Your task to perform on an android device: toggle notifications settings in the gmail app Image 0: 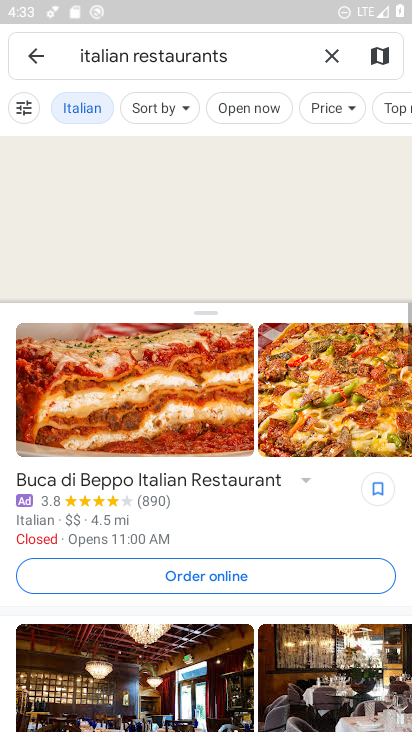
Step 0: press home button
Your task to perform on an android device: toggle notifications settings in the gmail app Image 1: 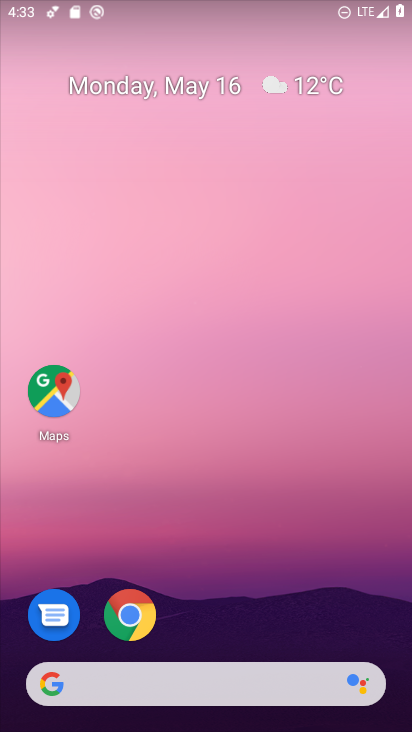
Step 1: drag from (226, 723) to (248, 84)
Your task to perform on an android device: toggle notifications settings in the gmail app Image 2: 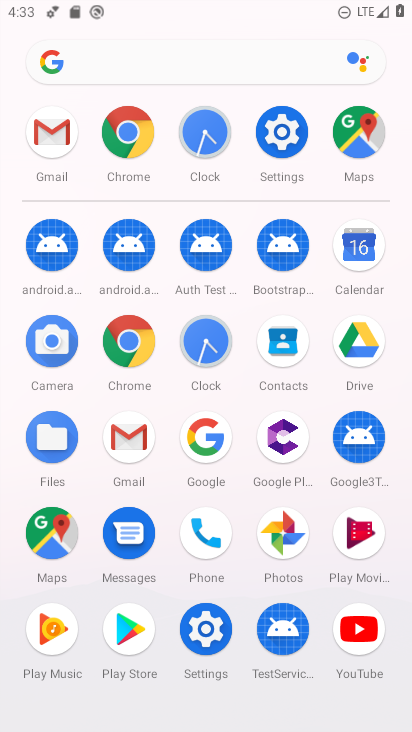
Step 2: click (128, 437)
Your task to perform on an android device: toggle notifications settings in the gmail app Image 3: 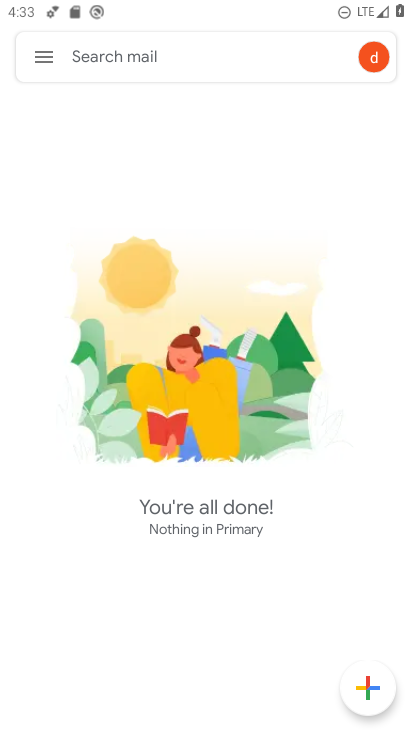
Step 3: click (38, 58)
Your task to perform on an android device: toggle notifications settings in the gmail app Image 4: 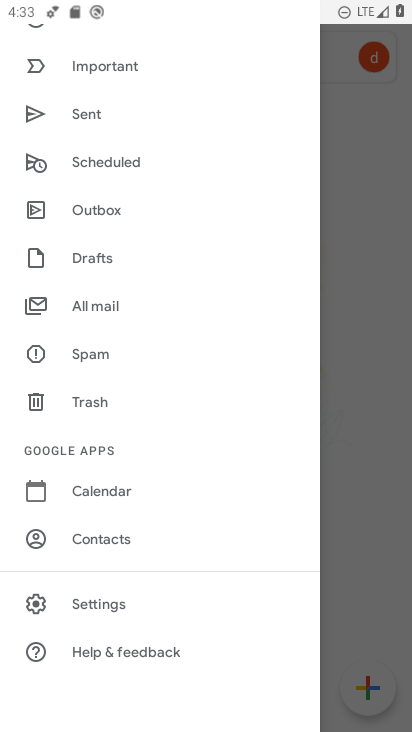
Step 4: click (96, 602)
Your task to perform on an android device: toggle notifications settings in the gmail app Image 5: 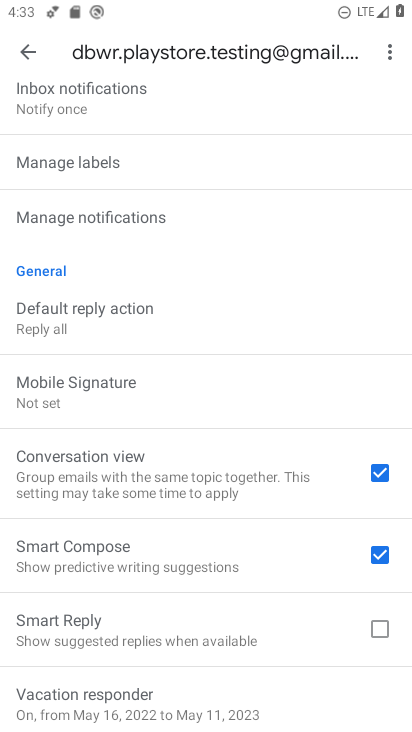
Step 5: drag from (146, 630) to (135, 298)
Your task to perform on an android device: toggle notifications settings in the gmail app Image 6: 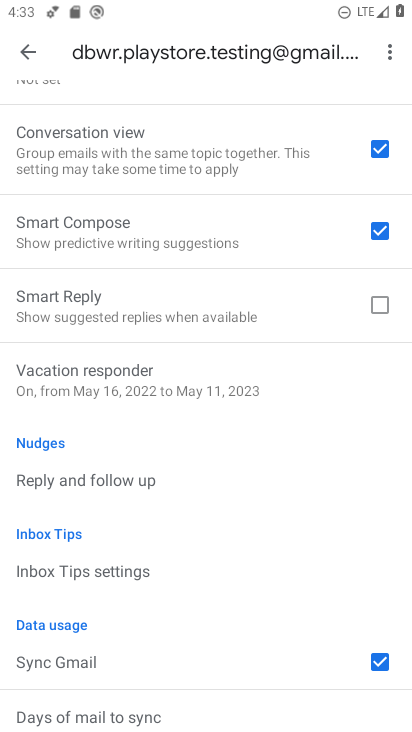
Step 6: drag from (194, 281) to (183, 651)
Your task to perform on an android device: toggle notifications settings in the gmail app Image 7: 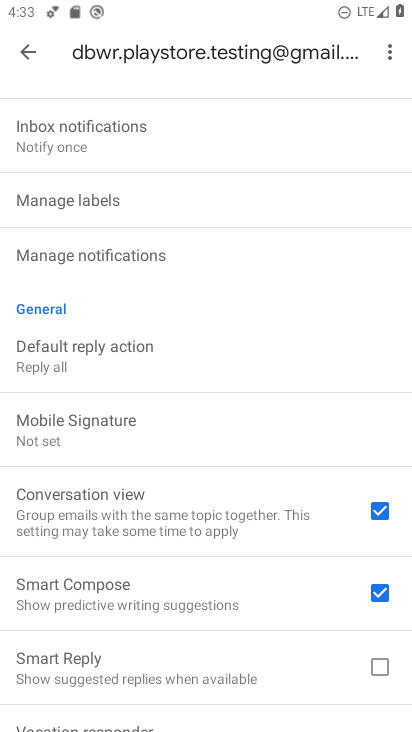
Step 7: drag from (155, 176) to (151, 471)
Your task to perform on an android device: toggle notifications settings in the gmail app Image 8: 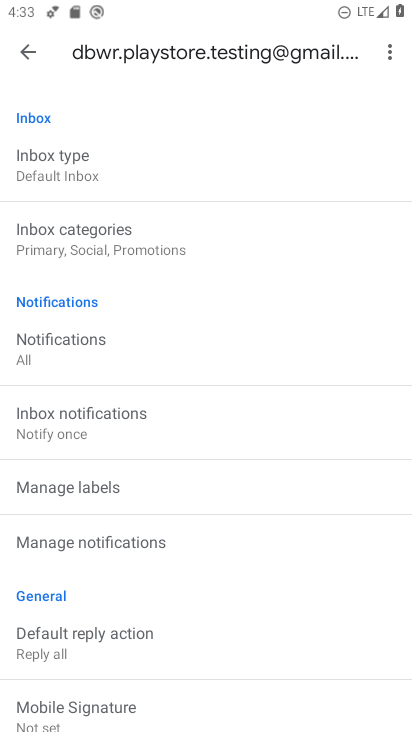
Step 8: click (56, 339)
Your task to perform on an android device: toggle notifications settings in the gmail app Image 9: 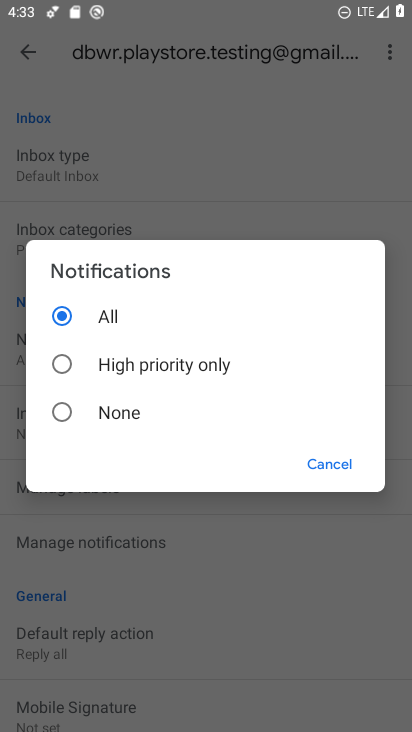
Step 9: click (70, 420)
Your task to perform on an android device: toggle notifications settings in the gmail app Image 10: 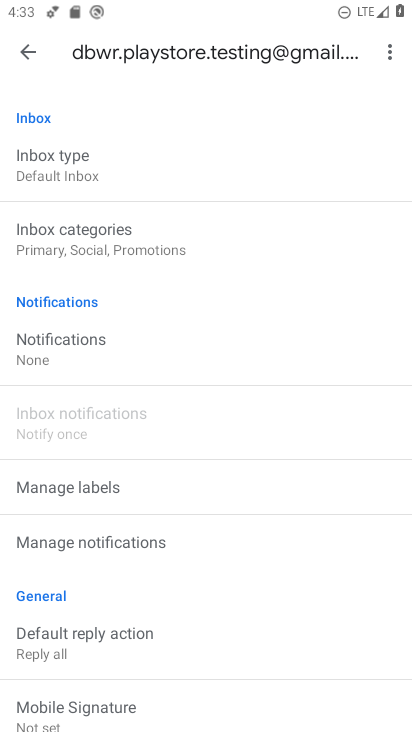
Step 10: task complete